Your task to perform on an android device: Open calendar and show me the third week of next month Image 0: 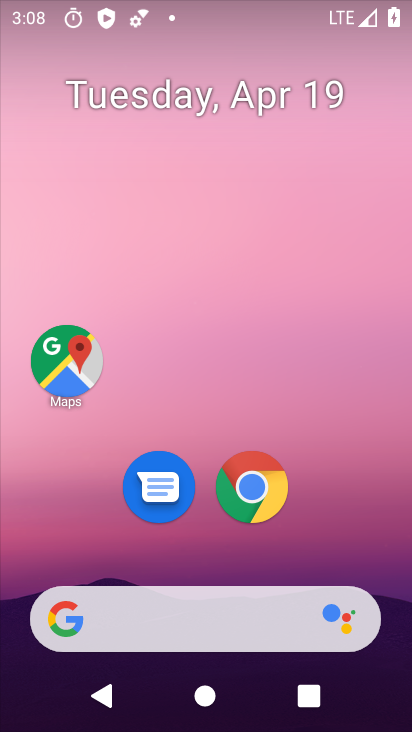
Step 0: drag from (195, 532) to (337, 4)
Your task to perform on an android device: Open calendar and show me the third week of next month Image 1: 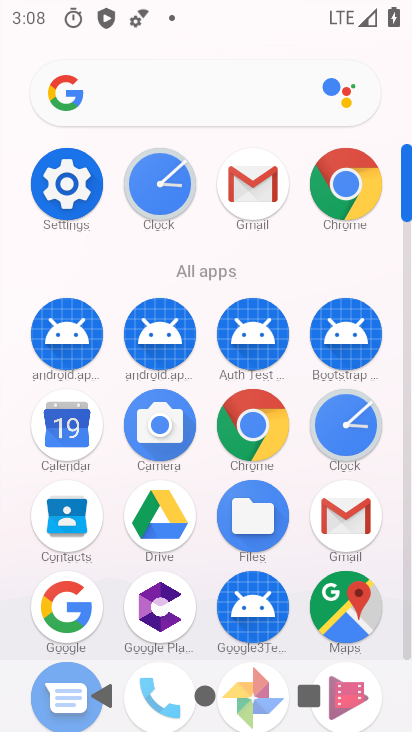
Step 1: click (71, 427)
Your task to perform on an android device: Open calendar and show me the third week of next month Image 2: 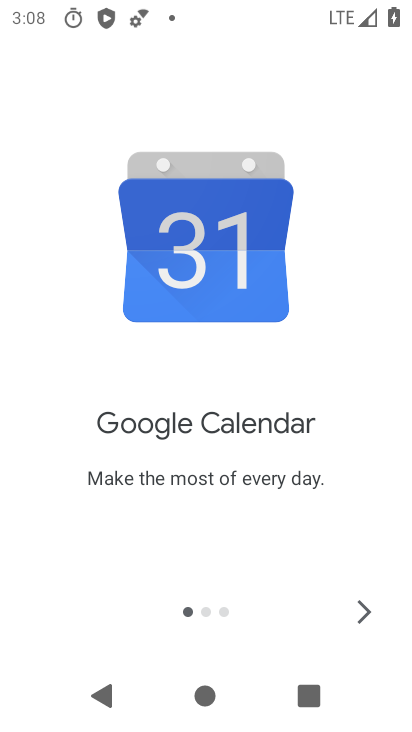
Step 2: click (376, 606)
Your task to perform on an android device: Open calendar and show me the third week of next month Image 3: 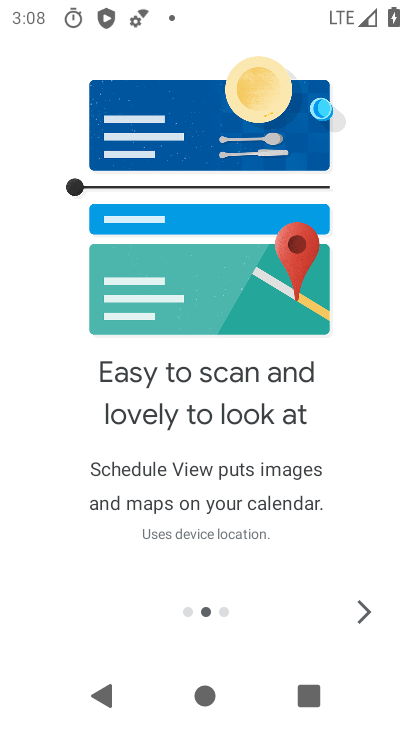
Step 3: click (369, 608)
Your task to perform on an android device: Open calendar and show me the third week of next month Image 4: 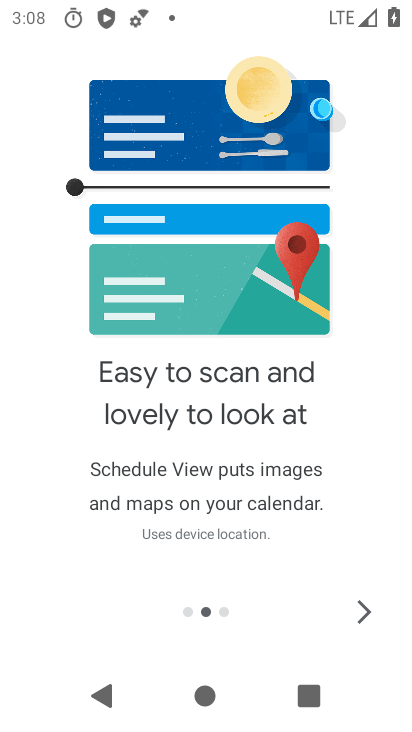
Step 4: click (369, 608)
Your task to perform on an android device: Open calendar and show me the third week of next month Image 5: 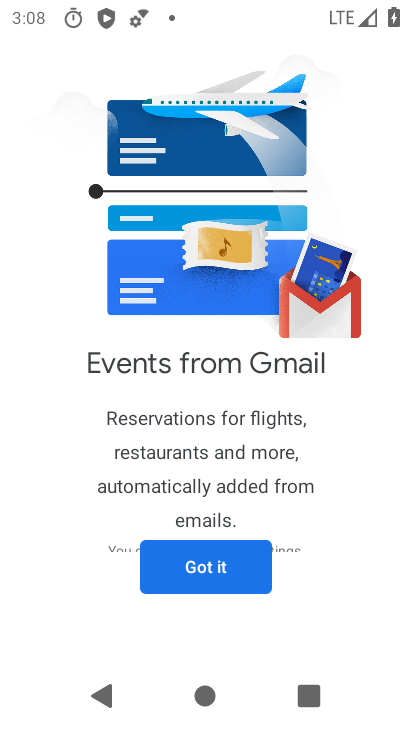
Step 5: click (216, 554)
Your task to perform on an android device: Open calendar and show me the third week of next month Image 6: 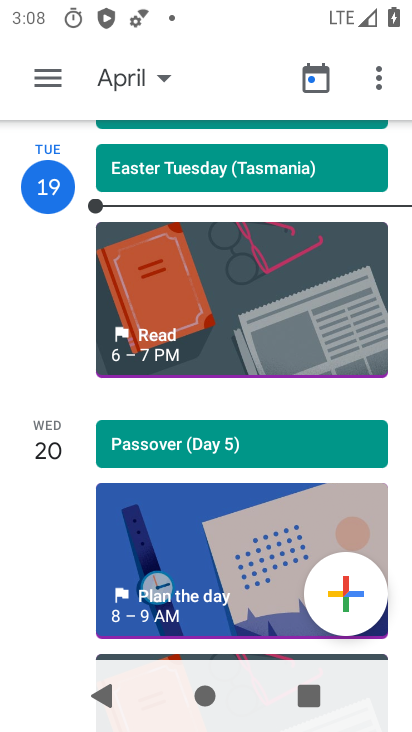
Step 6: click (124, 74)
Your task to perform on an android device: Open calendar and show me the third week of next month Image 7: 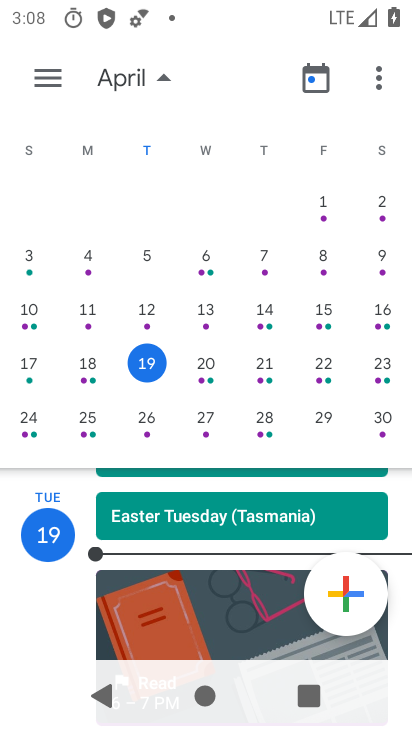
Step 7: drag from (354, 310) to (6, 303)
Your task to perform on an android device: Open calendar and show me the third week of next month Image 8: 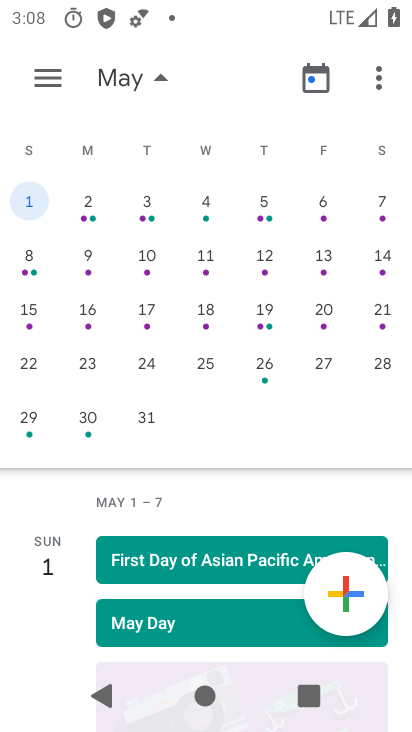
Step 8: click (93, 305)
Your task to perform on an android device: Open calendar and show me the third week of next month Image 9: 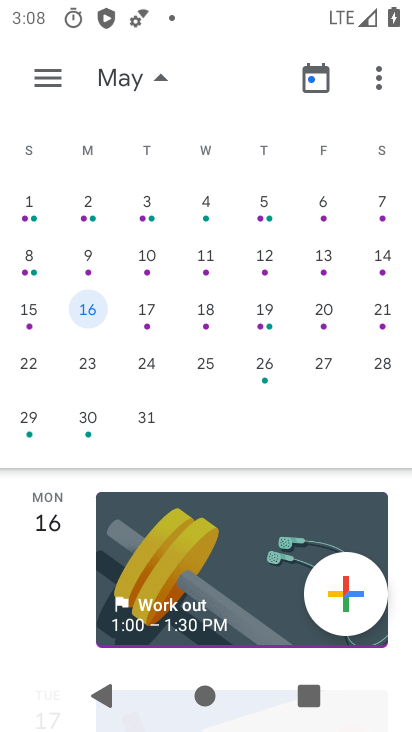
Step 9: task complete